Your task to perform on an android device: Go to settings Image 0: 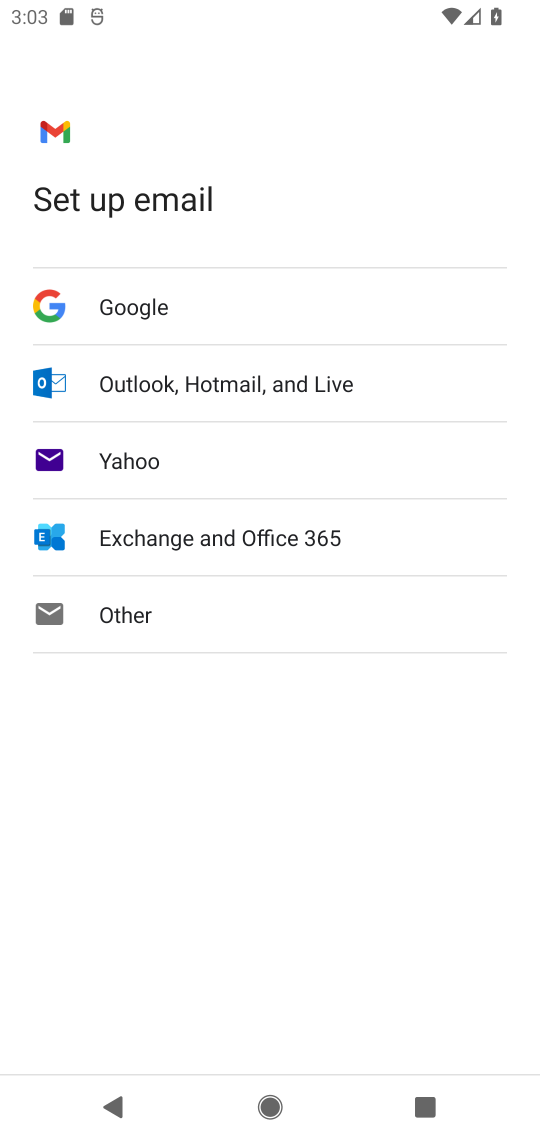
Step 0: press home button
Your task to perform on an android device: Go to settings Image 1: 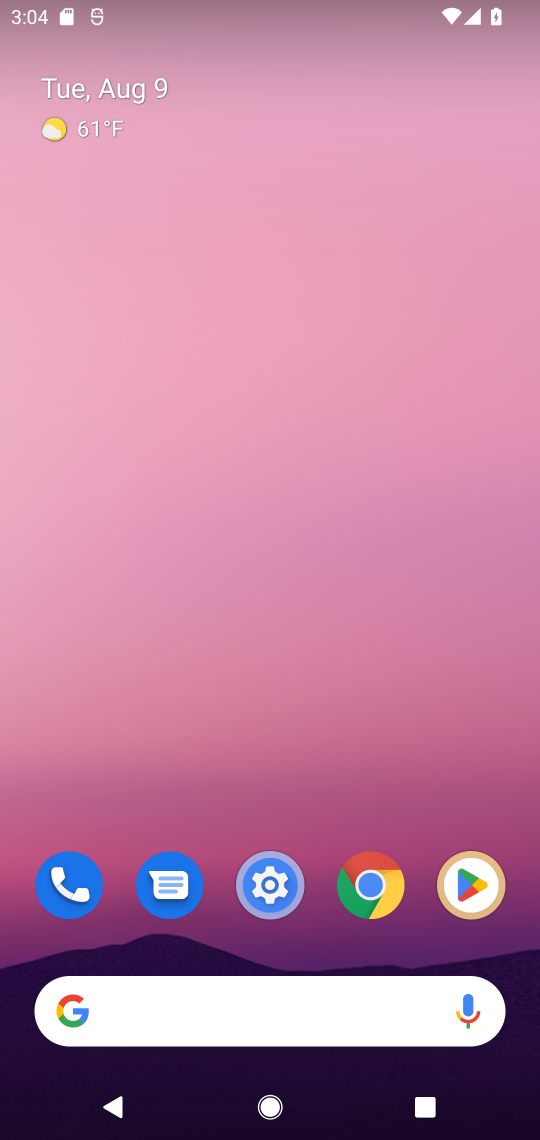
Step 1: click (269, 891)
Your task to perform on an android device: Go to settings Image 2: 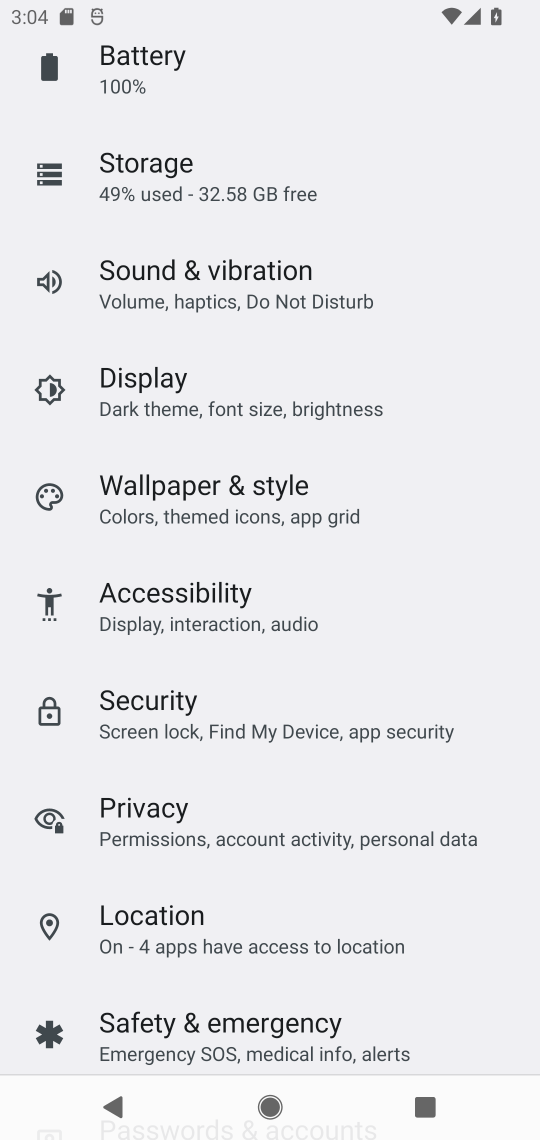
Step 2: task complete